Your task to perform on an android device: Open the map Image 0: 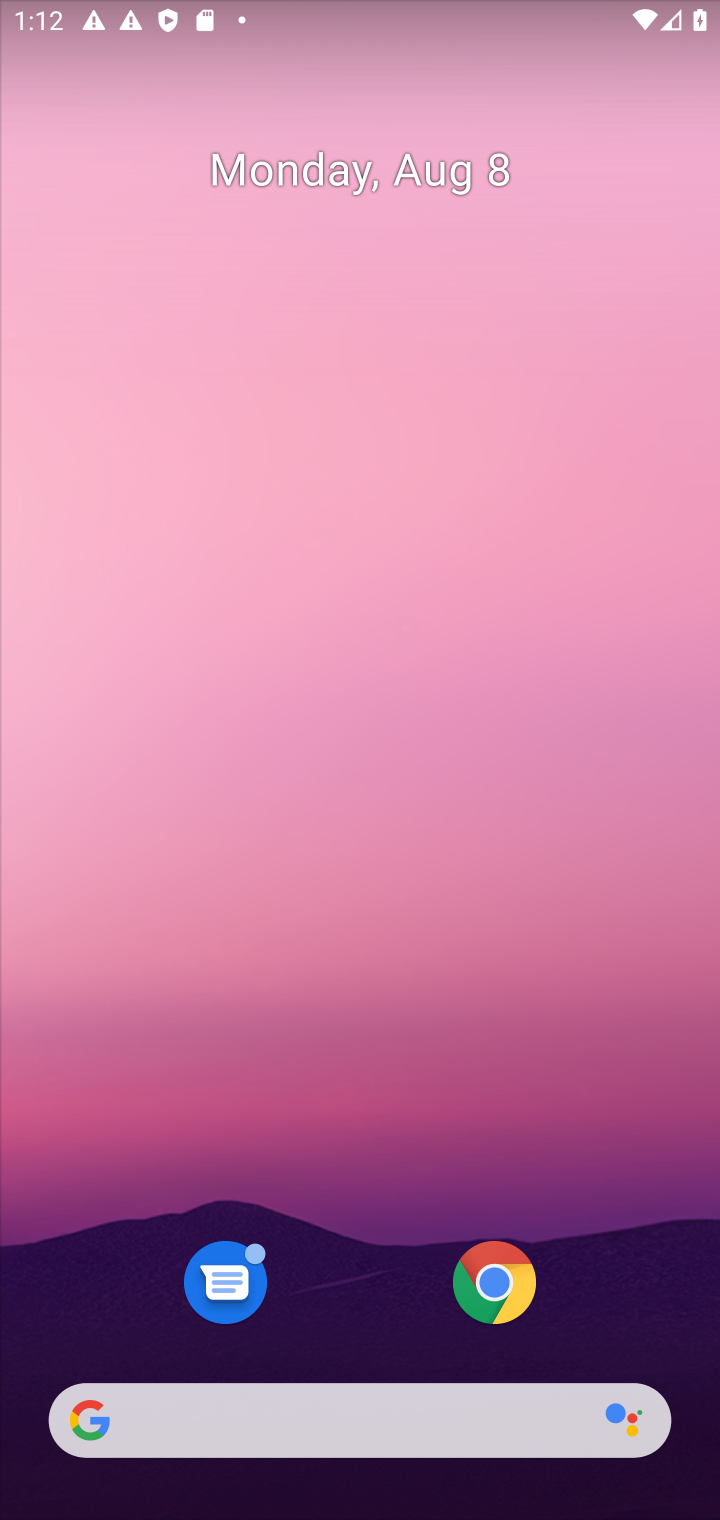
Step 0: drag from (348, 845) to (610, 1)
Your task to perform on an android device: Open the map Image 1: 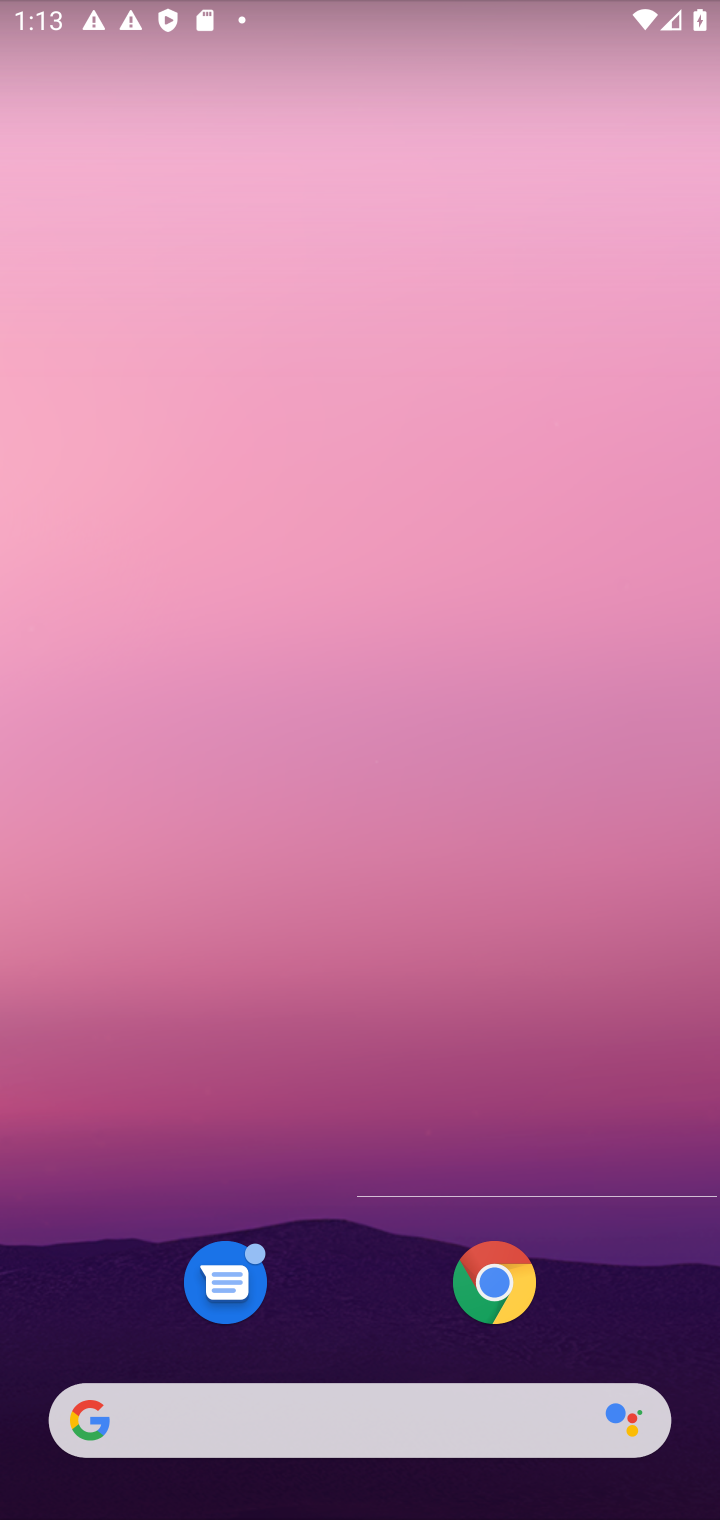
Step 1: click (396, 1277)
Your task to perform on an android device: Open the map Image 2: 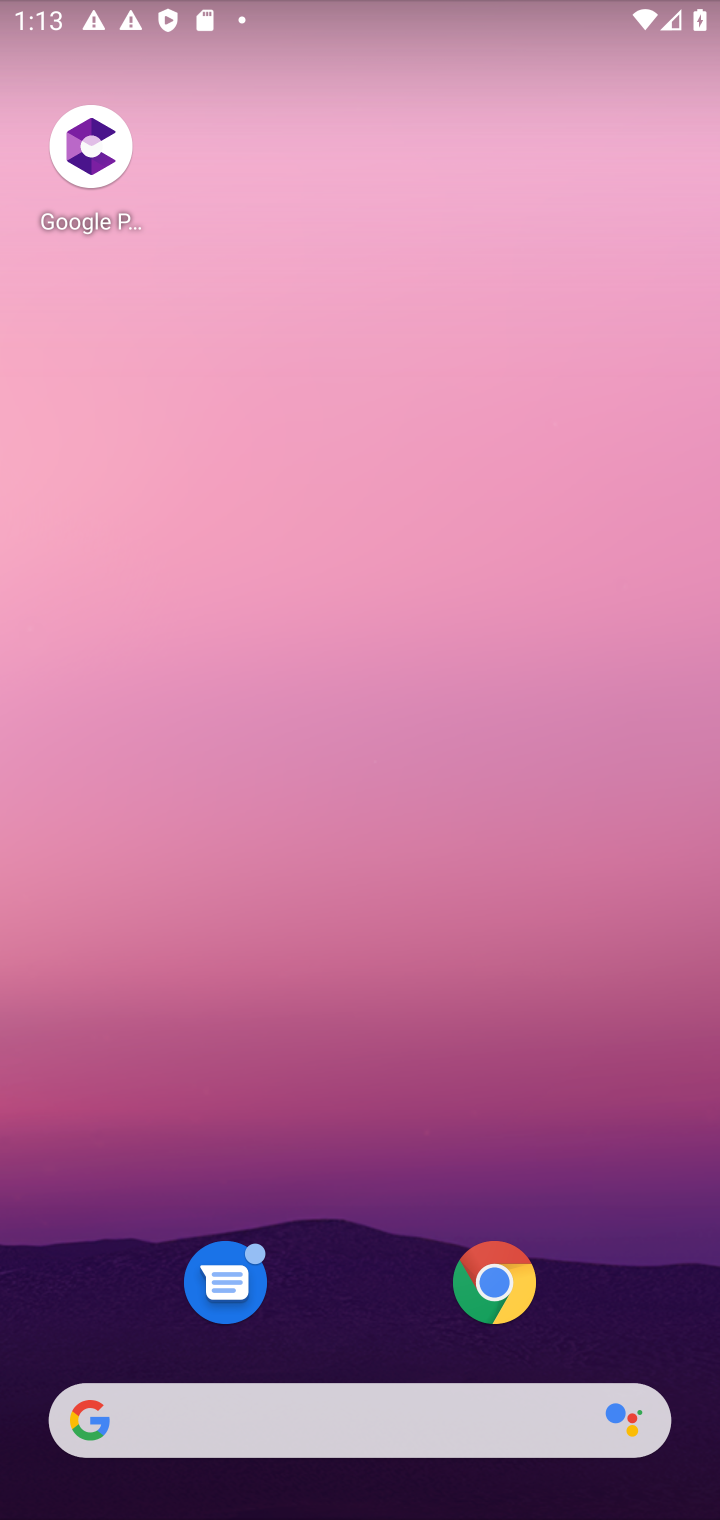
Step 2: drag from (331, 1301) to (298, 84)
Your task to perform on an android device: Open the map Image 3: 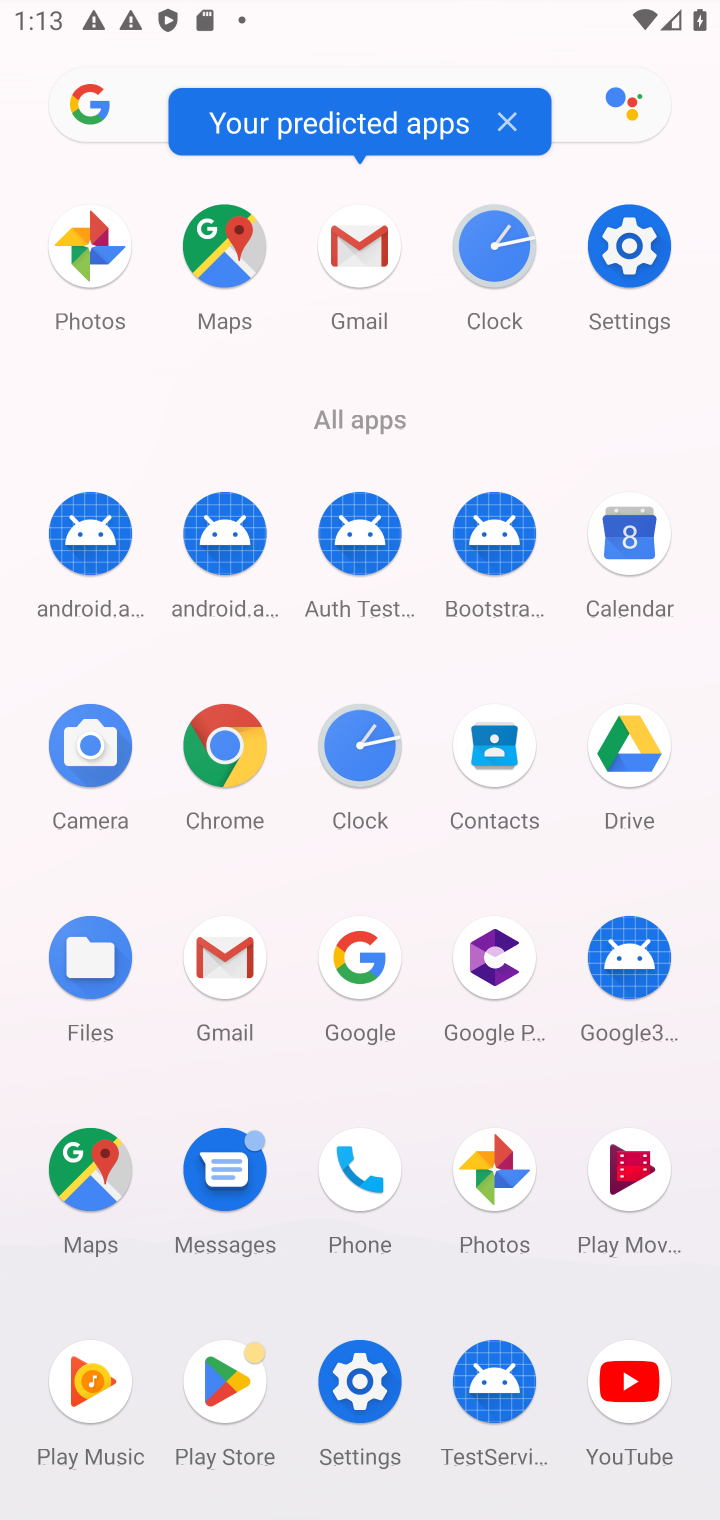
Step 3: click (105, 1215)
Your task to perform on an android device: Open the map Image 4: 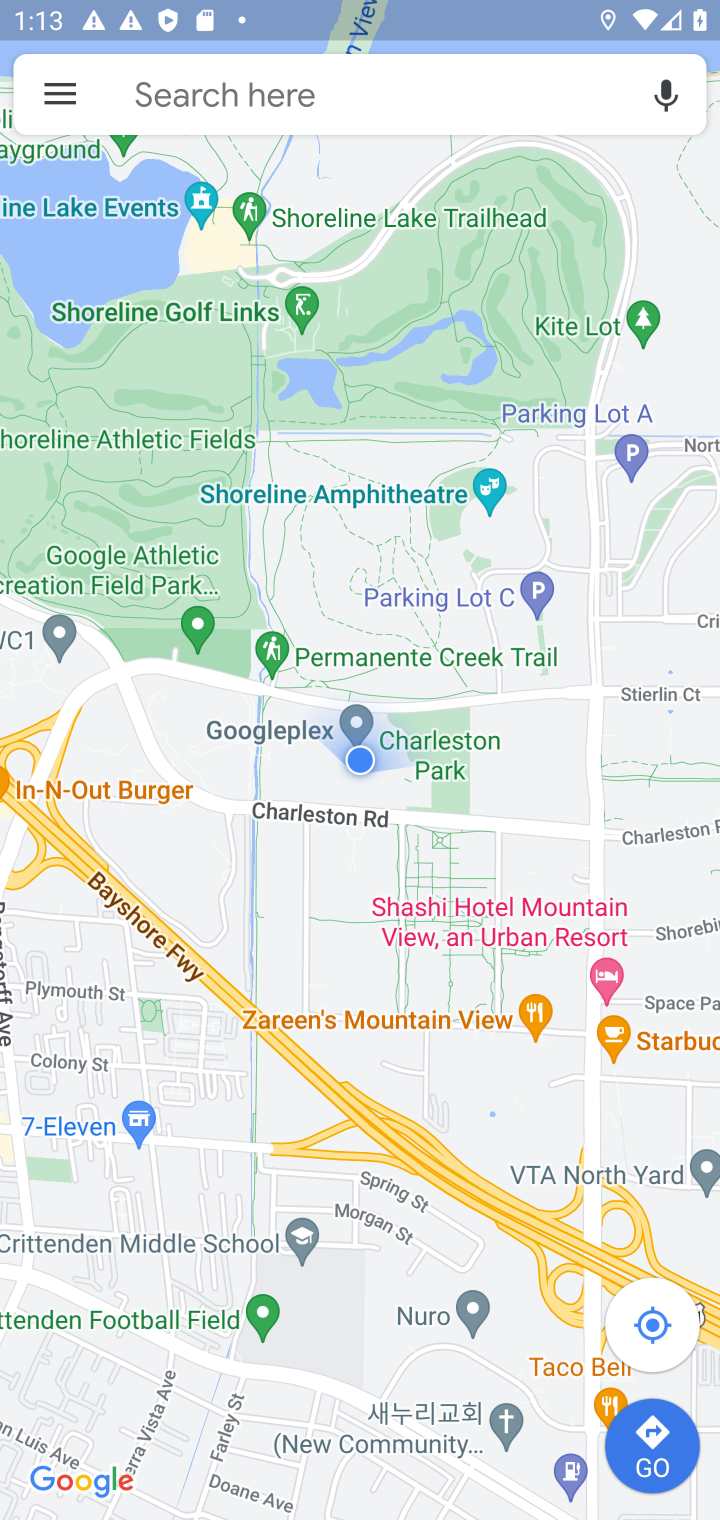
Step 4: task complete